Your task to perform on an android device: Open notification settings Image 0: 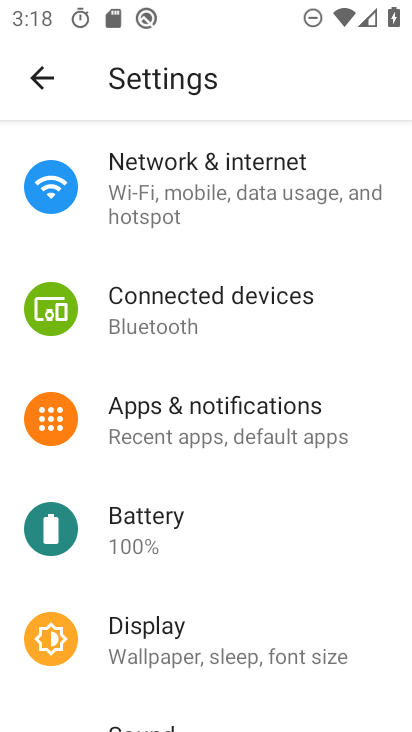
Step 0: press home button
Your task to perform on an android device: Open notification settings Image 1: 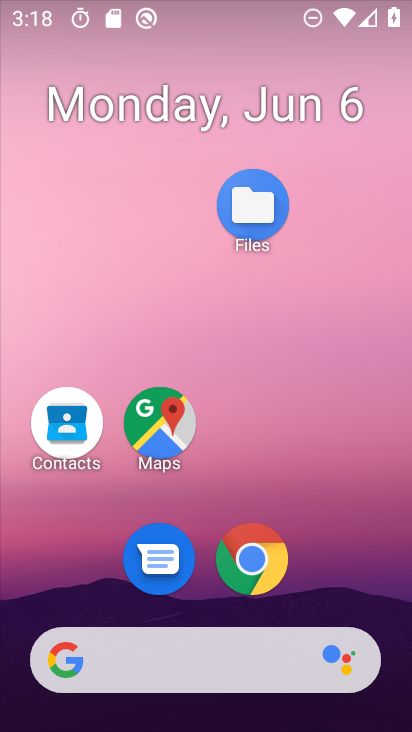
Step 1: drag from (287, 567) to (244, 177)
Your task to perform on an android device: Open notification settings Image 2: 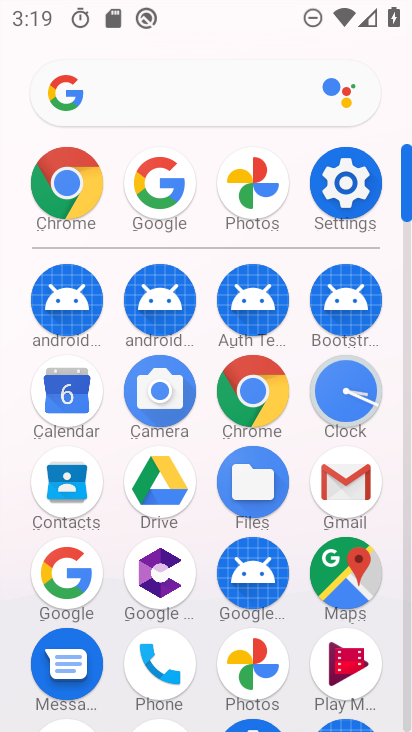
Step 2: click (347, 213)
Your task to perform on an android device: Open notification settings Image 3: 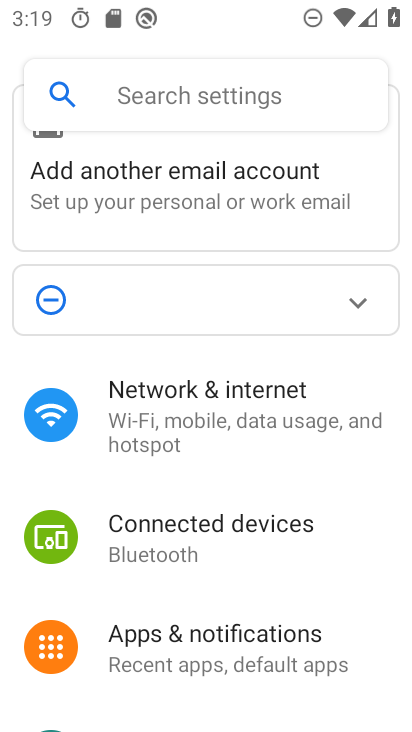
Step 3: click (273, 625)
Your task to perform on an android device: Open notification settings Image 4: 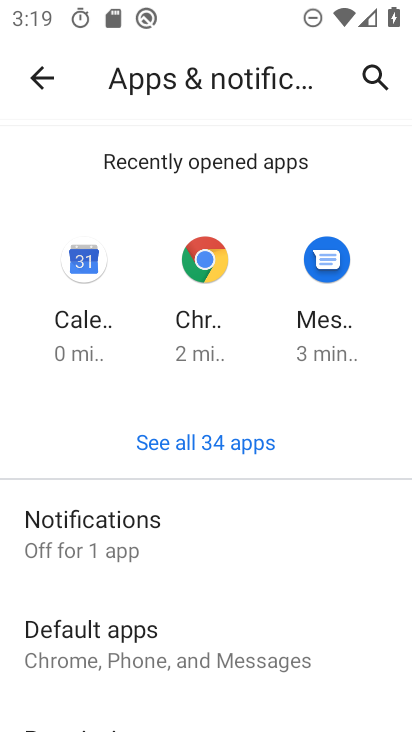
Step 4: click (193, 532)
Your task to perform on an android device: Open notification settings Image 5: 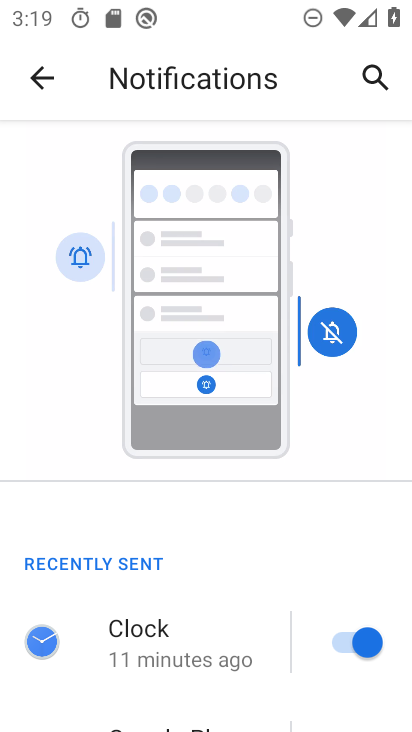
Step 5: click (342, 651)
Your task to perform on an android device: Open notification settings Image 6: 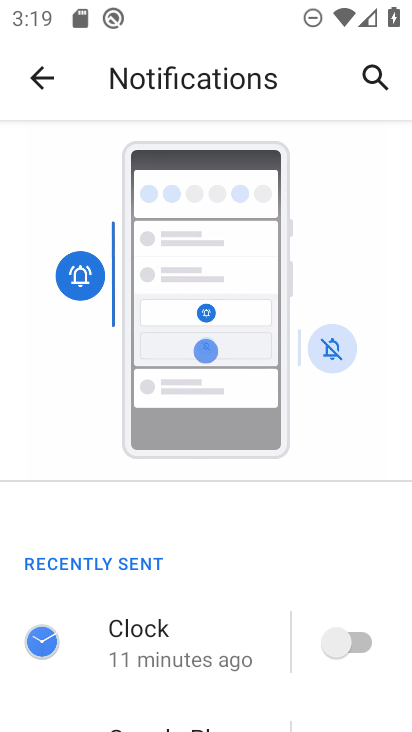
Step 6: task complete